Your task to perform on an android device: Go to display settings Image 0: 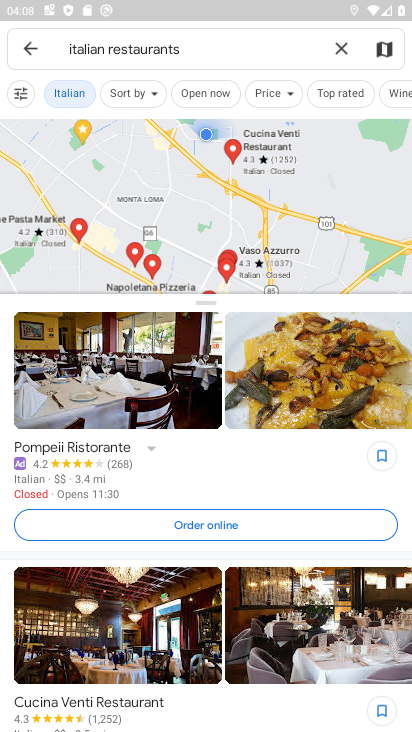
Step 0: press home button
Your task to perform on an android device: Go to display settings Image 1: 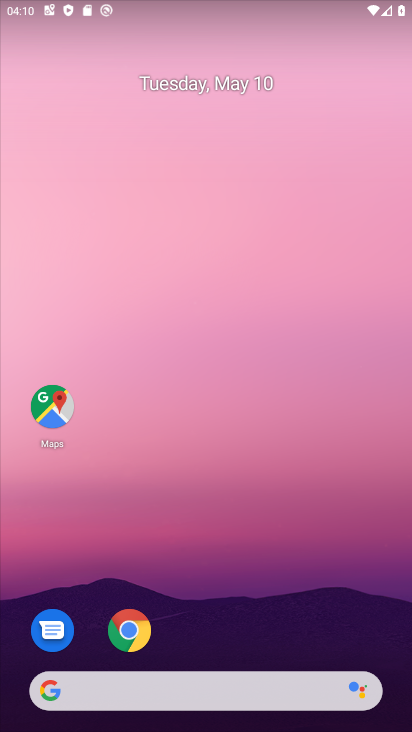
Step 1: drag from (187, 642) to (207, 10)
Your task to perform on an android device: Go to display settings Image 2: 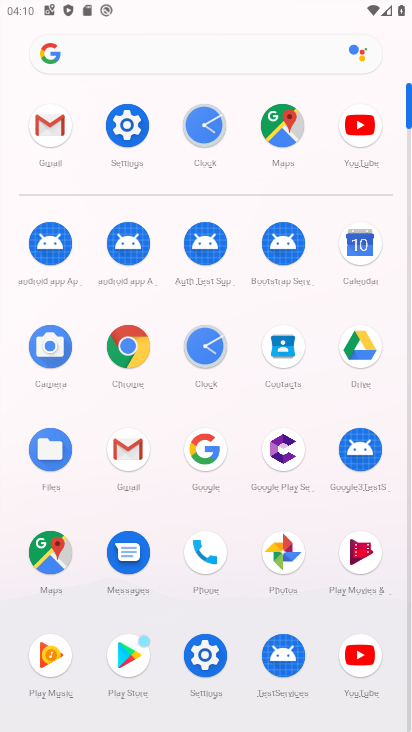
Step 2: click (208, 680)
Your task to perform on an android device: Go to display settings Image 3: 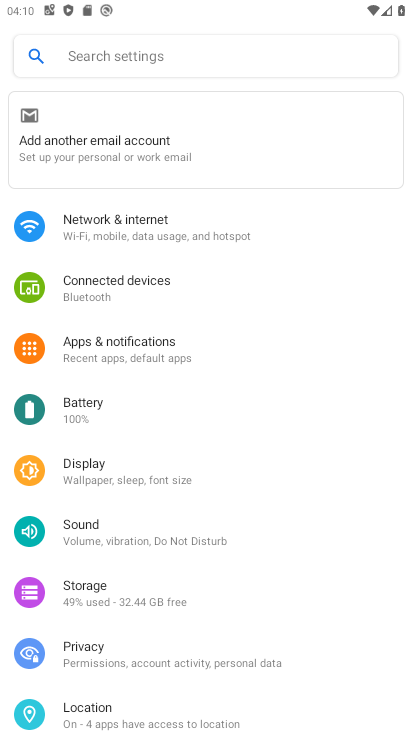
Step 3: click (108, 473)
Your task to perform on an android device: Go to display settings Image 4: 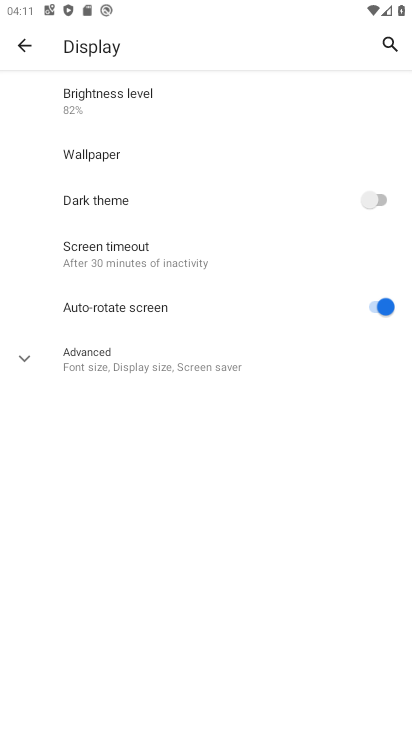
Step 4: task complete